Your task to perform on an android device: Go to network settings Image 0: 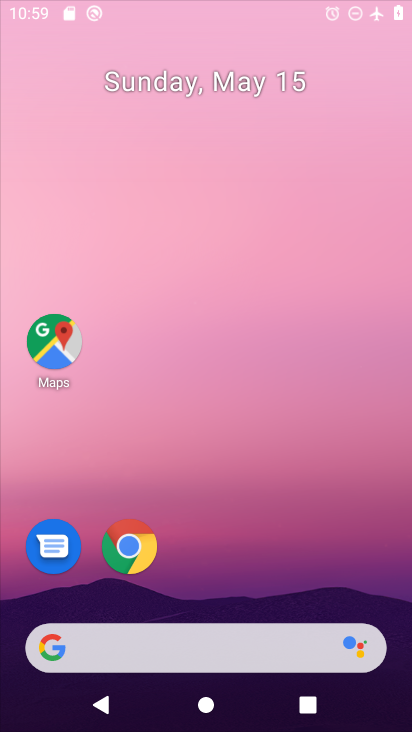
Step 0: drag from (295, 474) to (300, 150)
Your task to perform on an android device: Go to network settings Image 1: 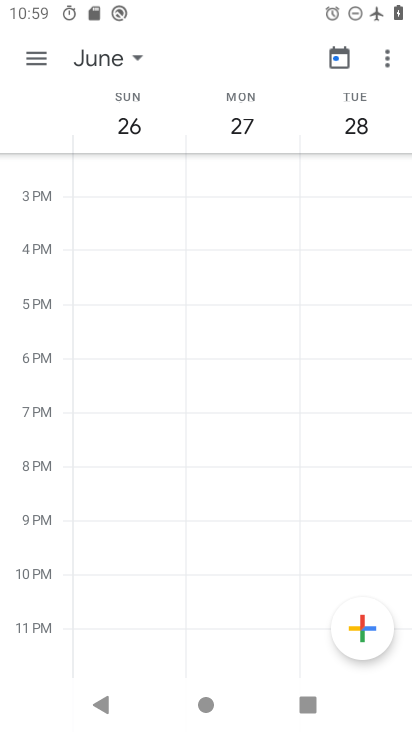
Step 1: press home button
Your task to perform on an android device: Go to network settings Image 2: 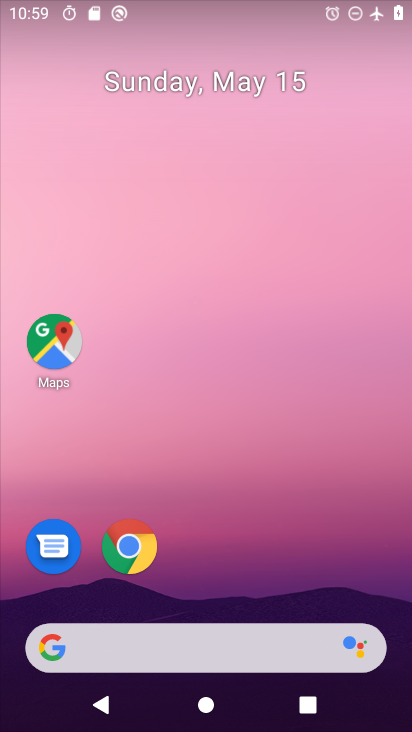
Step 2: drag from (203, 514) to (319, 126)
Your task to perform on an android device: Go to network settings Image 3: 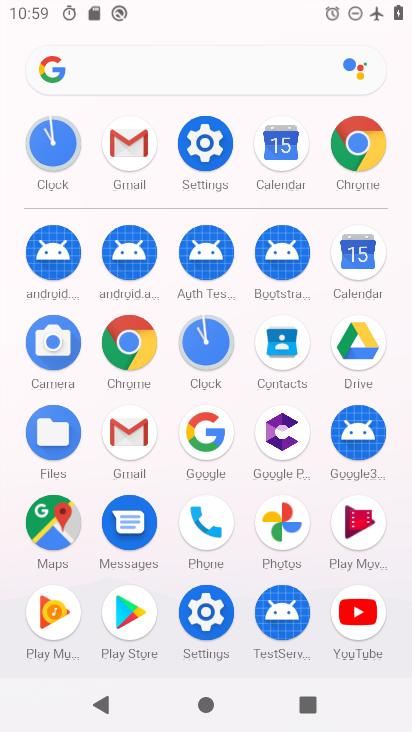
Step 3: click (198, 144)
Your task to perform on an android device: Go to network settings Image 4: 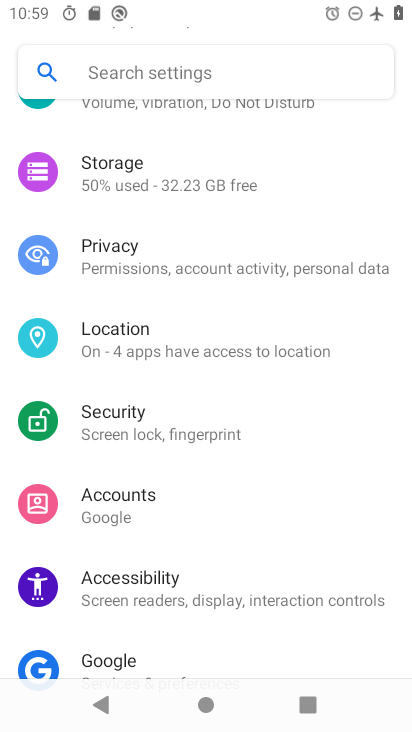
Step 4: drag from (235, 580) to (268, 154)
Your task to perform on an android device: Go to network settings Image 5: 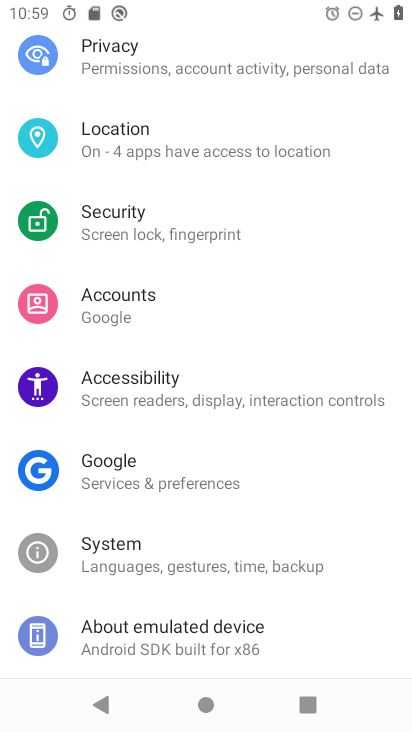
Step 5: drag from (198, 237) to (265, 635)
Your task to perform on an android device: Go to network settings Image 6: 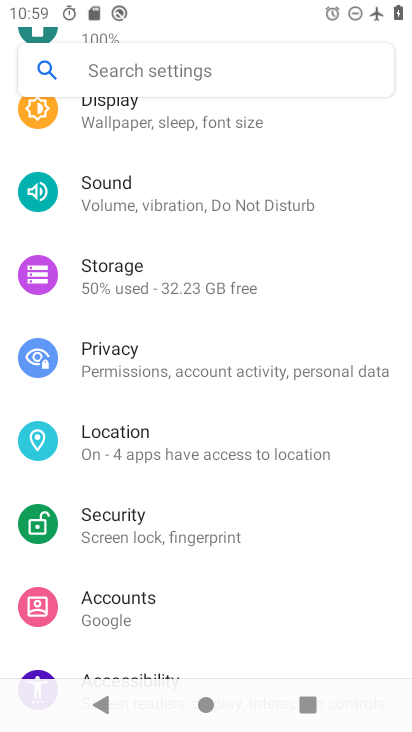
Step 6: drag from (222, 258) to (251, 659)
Your task to perform on an android device: Go to network settings Image 7: 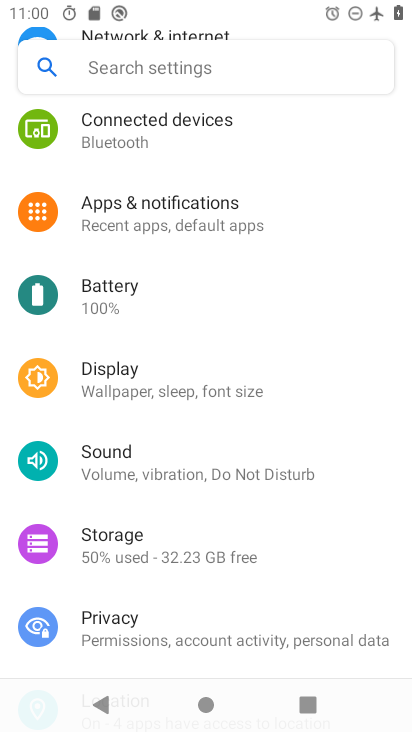
Step 7: drag from (269, 244) to (269, 689)
Your task to perform on an android device: Go to network settings Image 8: 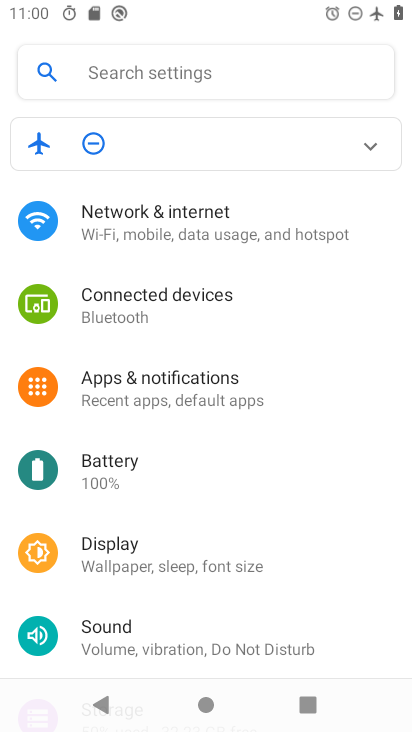
Step 8: click (200, 242)
Your task to perform on an android device: Go to network settings Image 9: 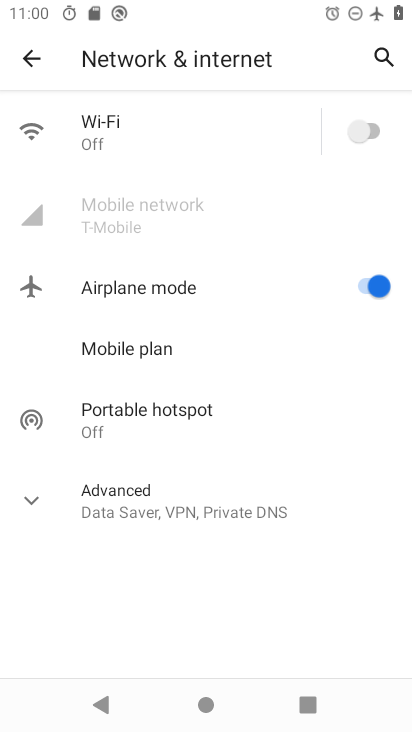
Step 9: task complete